Your task to perform on an android device: Open Android settings Image 0: 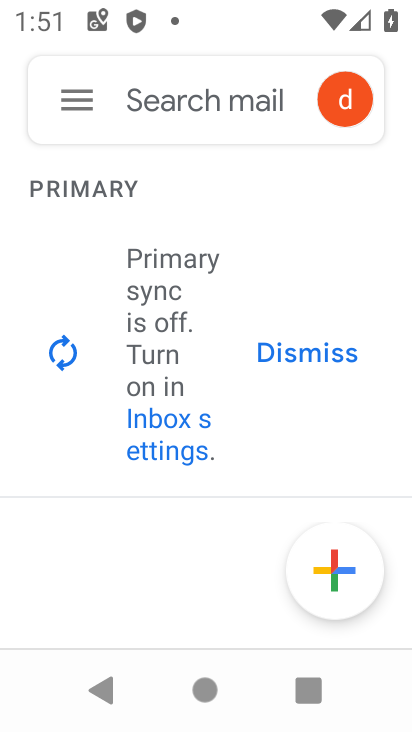
Step 0: press home button
Your task to perform on an android device: Open Android settings Image 1: 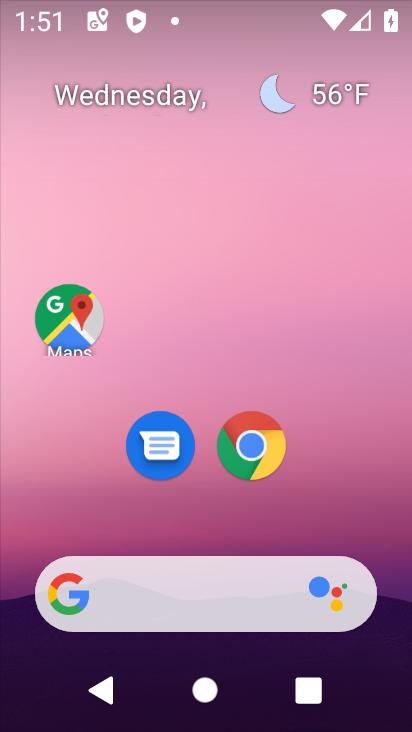
Step 1: drag from (249, 549) to (218, 84)
Your task to perform on an android device: Open Android settings Image 2: 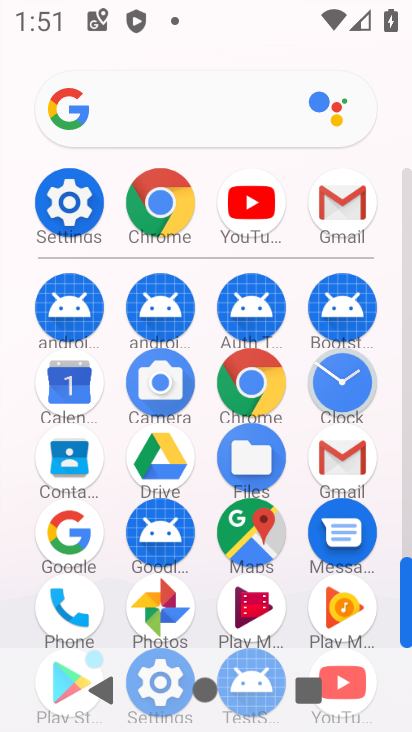
Step 2: click (64, 209)
Your task to perform on an android device: Open Android settings Image 3: 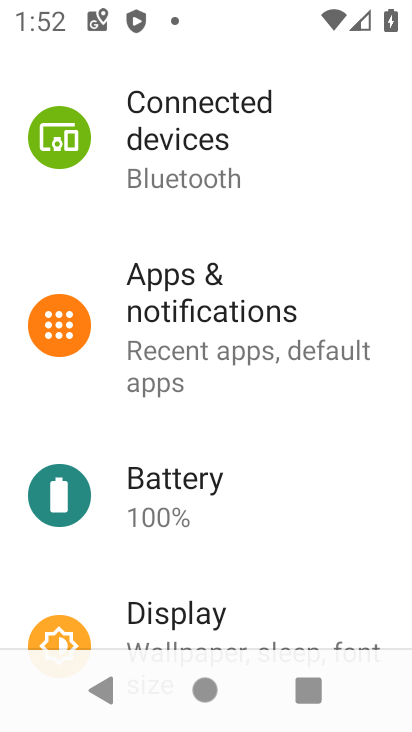
Step 3: task complete